Your task to perform on an android device: turn pop-ups off in chrome Image 0: 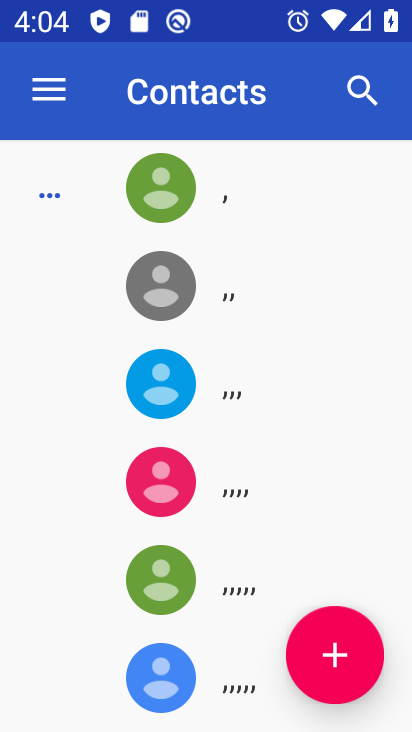
Step 0: press home button
Your task to perform on an android device: turn pop-ups off in chrome Image 1: 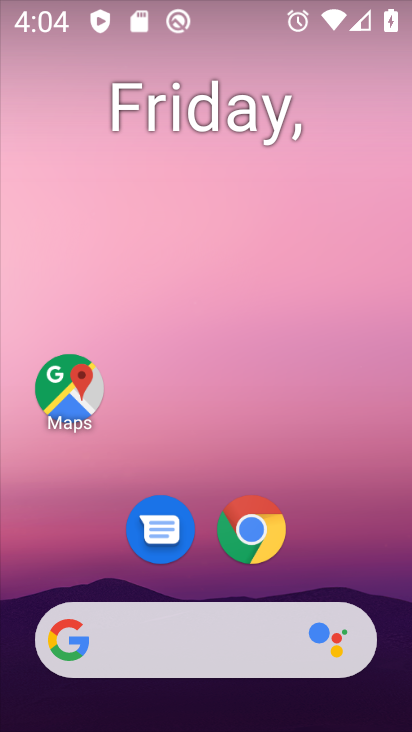
Step 1: click (255, 530)
Your task to perform on an android device: turn pop-ups off in chrome Image 2: 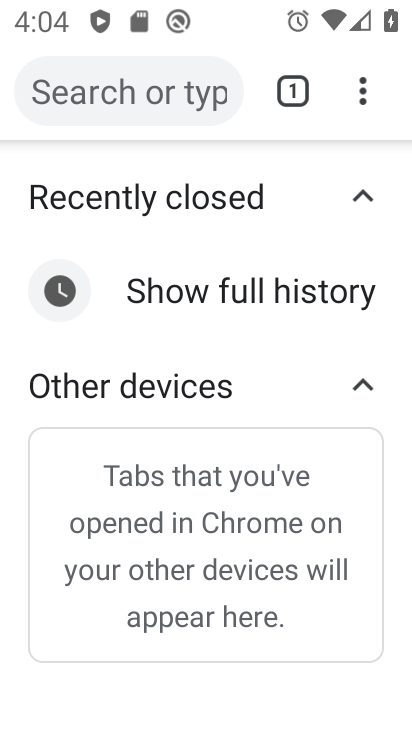
Step 2: drag from (373, 95) to (270, 570)
Your task to perform on an android device: turn pop-ups off in chrome Image 3: 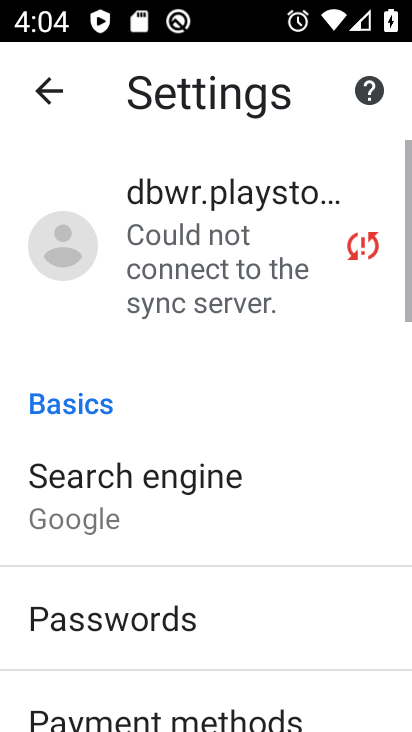
Step 3: drag from (218, 655) to (350, 227)
Your task to perform on an android device: turn pop-ups off in chrome Image 4: 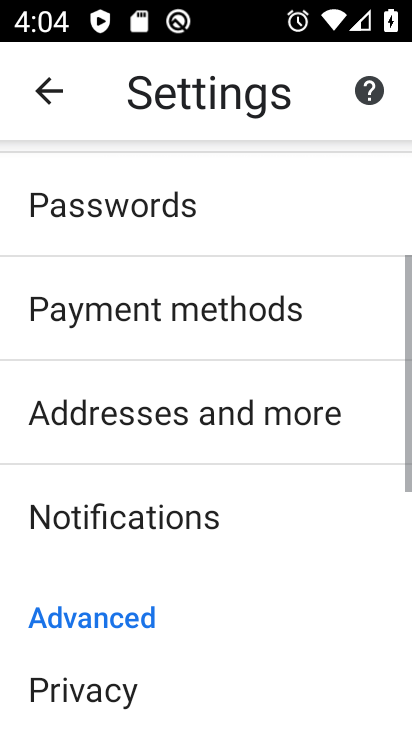
Step 4: drag from (239, 591) to (329, 230)
Your task to perform on an android device: turn pop-ups off in chrome Image 5: 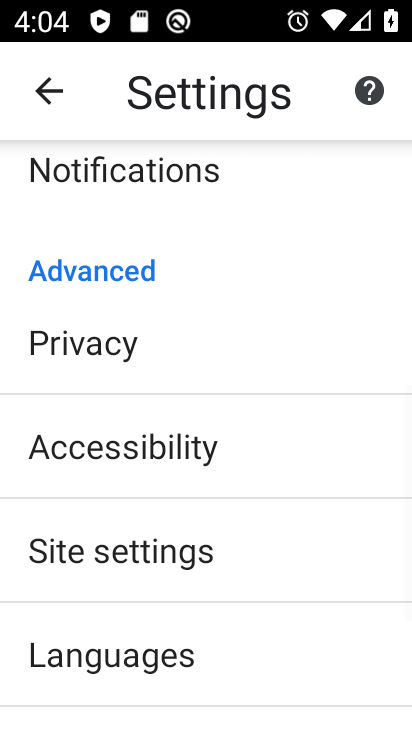
Step 5: click (259, 533)
Your task to perform on an android device: turn pop-ups off in chrome Image 6: 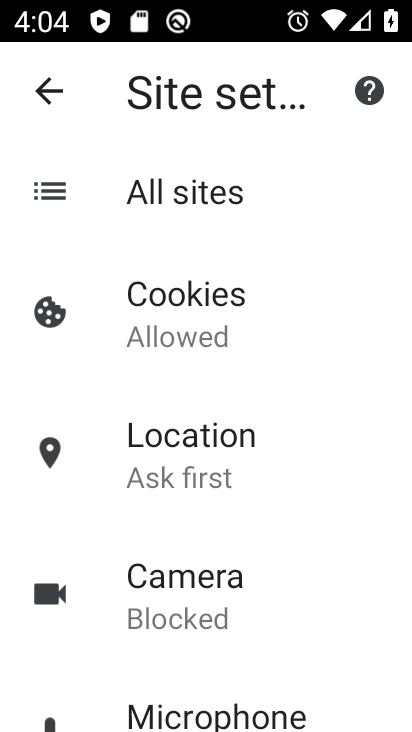
Step 6: drag from (199, 648) to (320, 223)
Your task to perform on an android device: turn pop-ups off in chrome Image 7: 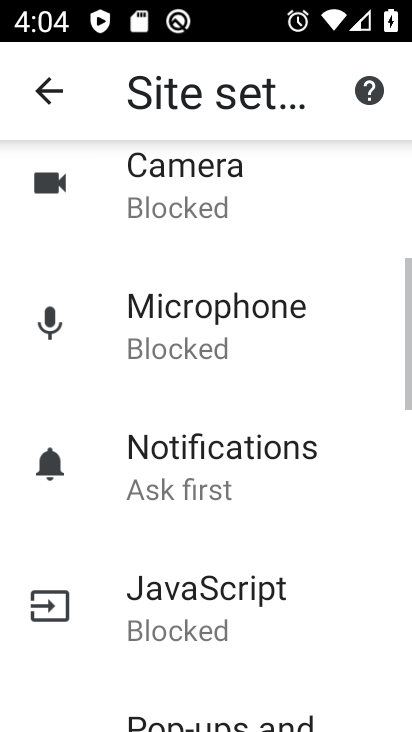
Step 7: drag from (237, 632) to (357, 265)
Your task to perform on an android device: turn pop-ups off in chrome Image 8: 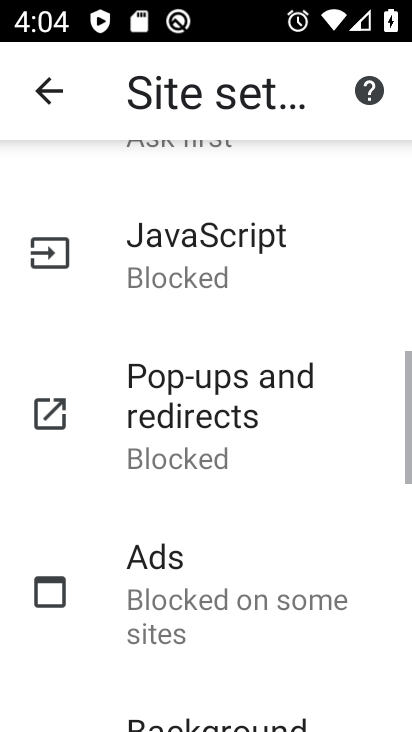
Step 8: drag from (272, 631) to (387, 234)
Your task to perform on an android device: turn pop-ups off in chrome Image 9: 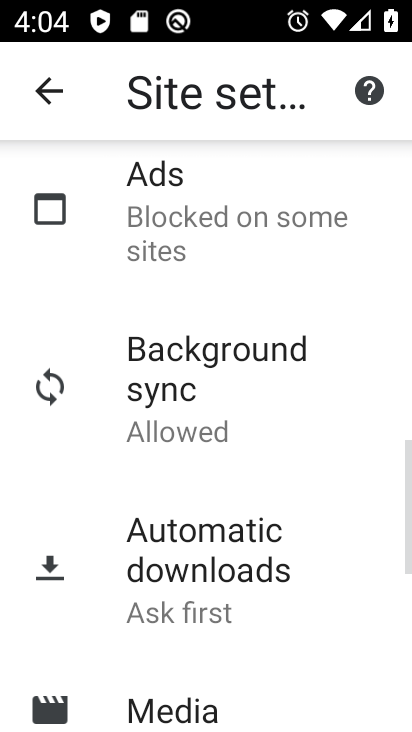
Step 9: drag from (234, 677) to (394, 228)
Your task to perform on an android device: turn pop-ups off in chrome Image 10: 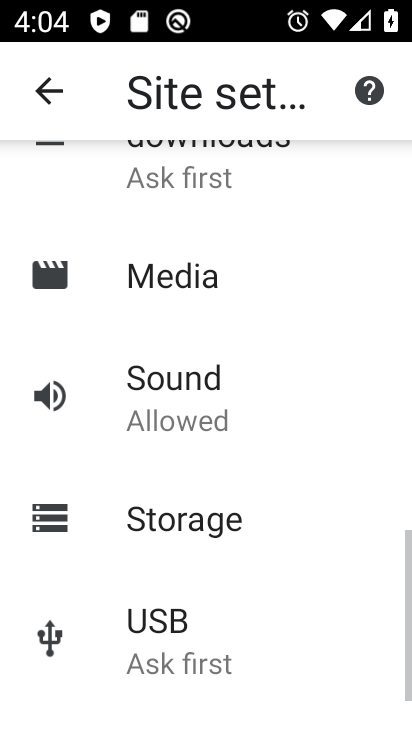
Step 10: drag from (230, 664) to (317, 687)
Your task to perform on an android device: turn pop-ups off in chrome Image 11: 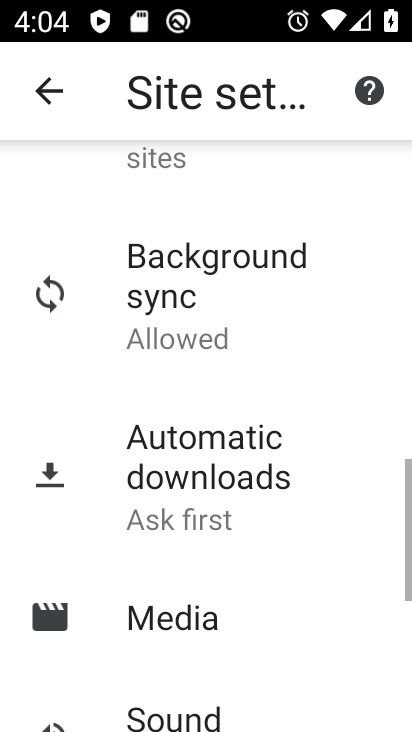
Step 11: drag from (337, 316) to (321, 722)
Your task to perform on an android device: turn pop-ups off in chrome Image 12: 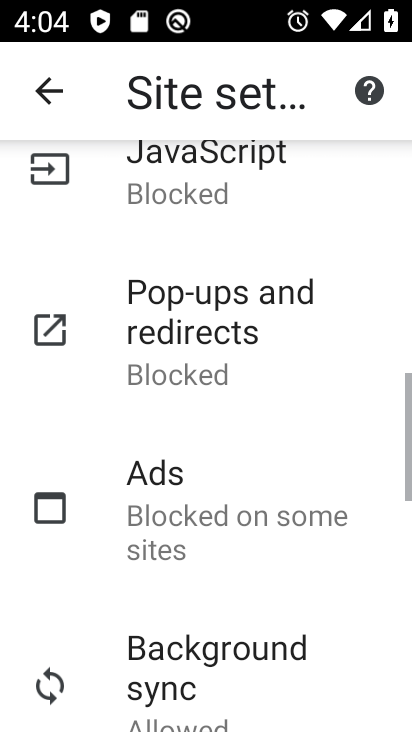
Step 12: drag from (263, 296) to (249, 458)
Your task to perform on an android device: turn pop-ups off in chrome Image 13: 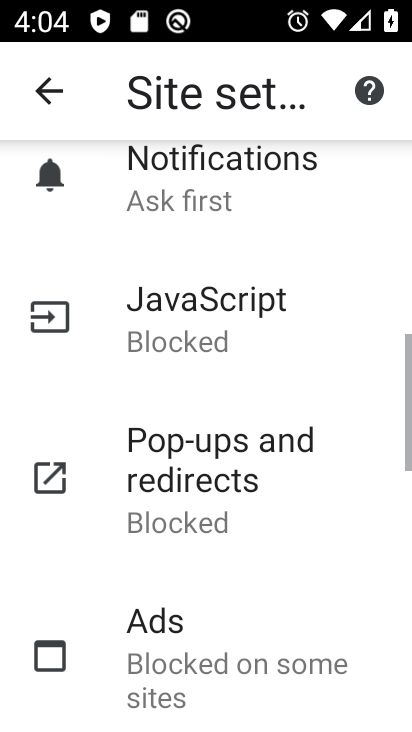
Step 13: click (198, 518)
Your task to perform on an android device: turn pop-ups off in chrome Image 14: 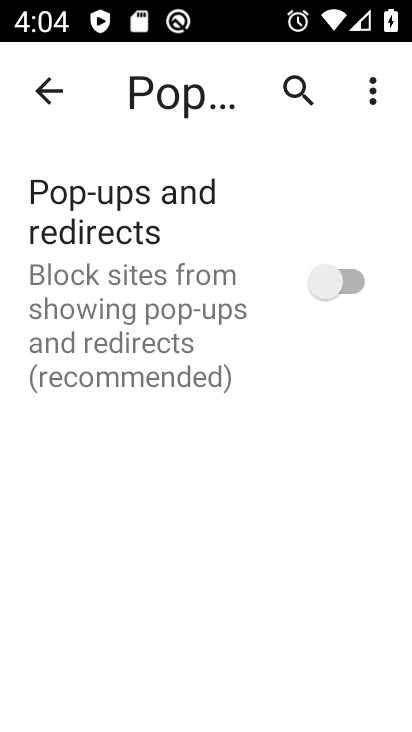
Step 14: task complete